Your task to perform on an android device: open the mobile data screen to see how much data has been used Image 0: 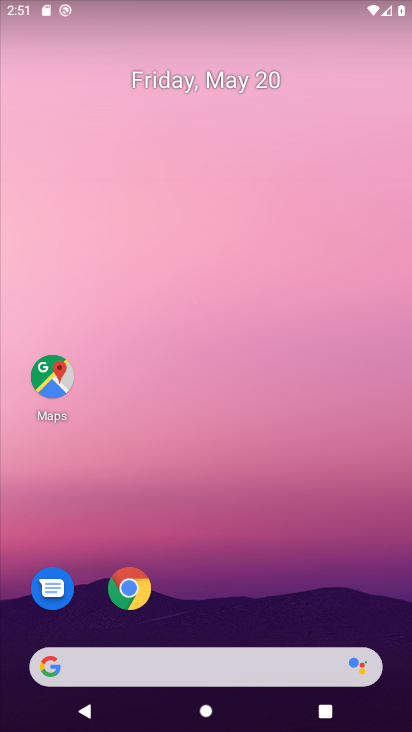
Step 0: drag from (268, 604) to (216, 134)
Your task to perform on an android device: open the mobile data screen to see how much data has been used Image 1: 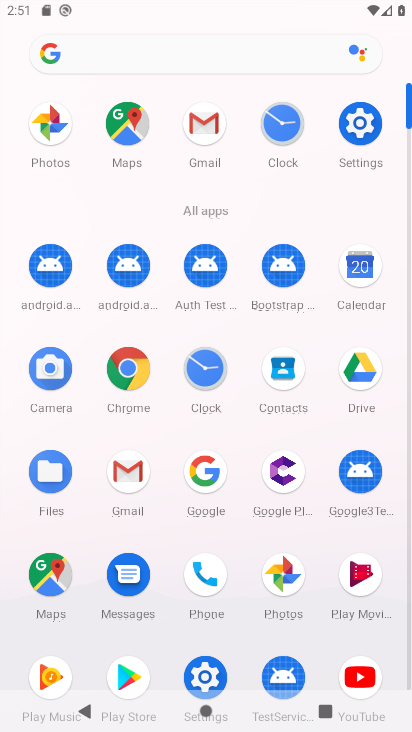
Step 1: click (346, 121)
Your task to perform on an android device: open the mobile data screen to see how much data has been used Image 2: 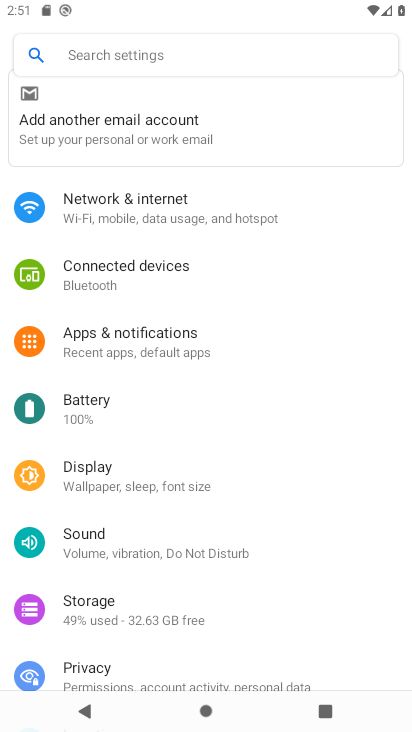
Step 2: click (102, 225)
Your task to perform on an android device: open the mobile data screen to see how much data has been used Image 3: 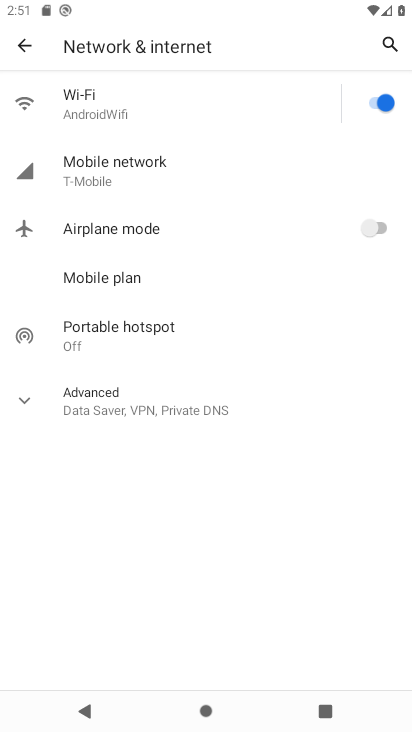
Step 3: click (131, 179)
Your task to perform on an android device: open the mobile data screen to see how much data has been used Image 4: 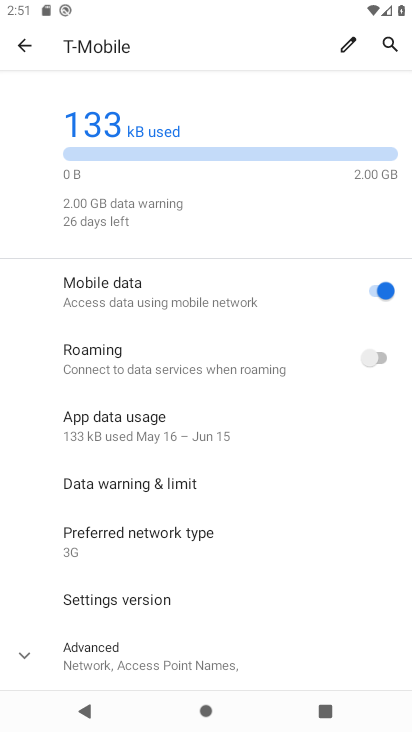
Step 4: task complete